Your task to perform on an android device: snooze an email in the gmail app Image 0: 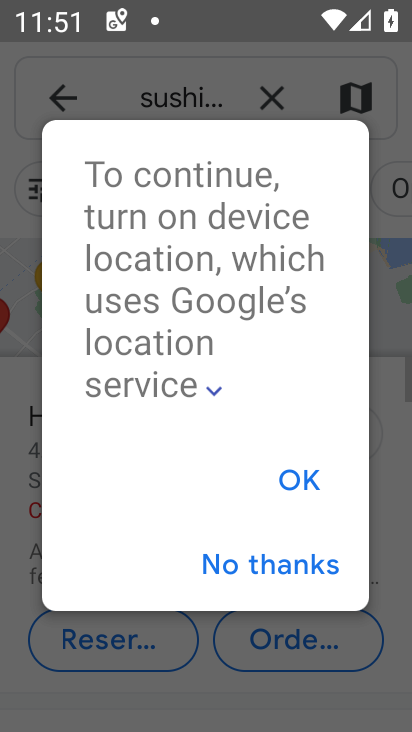
Step 0: press home button
Your task to perform on an android device: snooze an email in the gmail app Image 1: 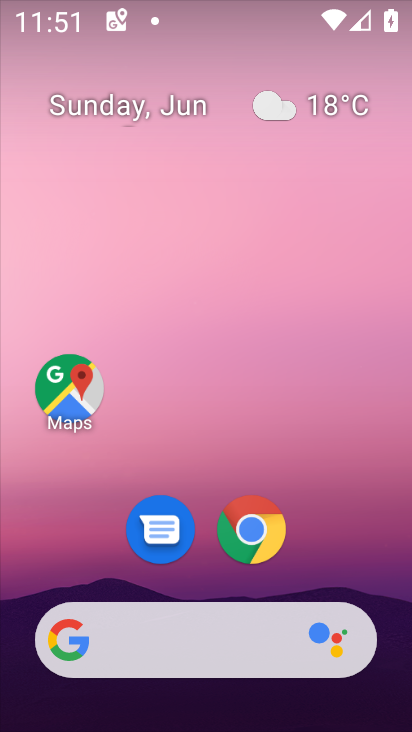
Step 1: drag from (354, 488) to (277, 46)
Your task to perform on an android device: snooze an email in the gmail app Image 2: 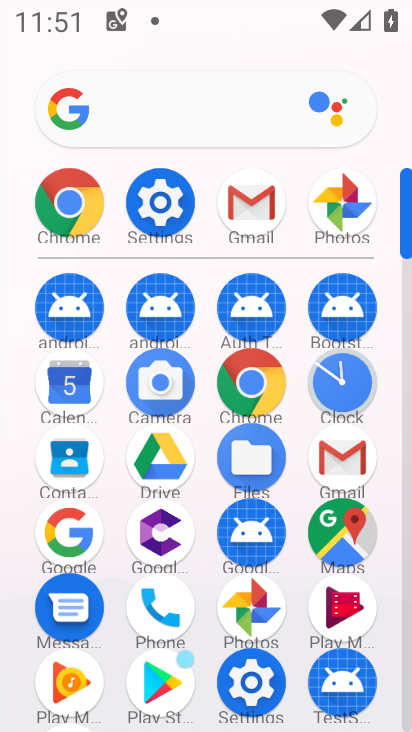
Step 2: click (248, 205)
Your task to perform on an android device: snooze an email in the gmail app Image 3: 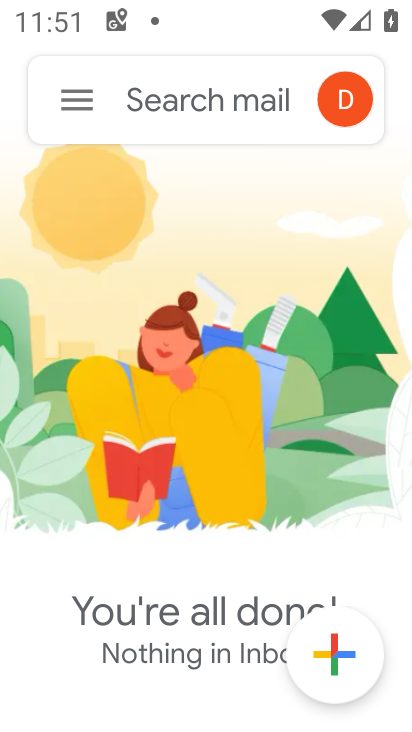
Step 3: click (56, 88)
Your task to perform on an android device: snooze an email in the gmail app Image 4: 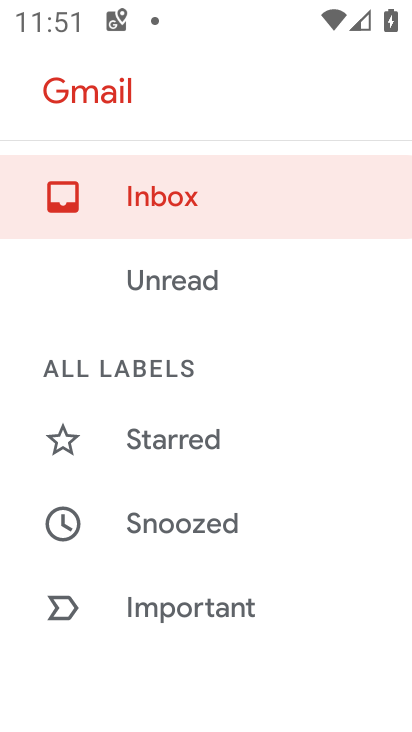
Step 4: click (173, 202)
Your task to perform on an android device: snooze an email in the gmail app Image 5: 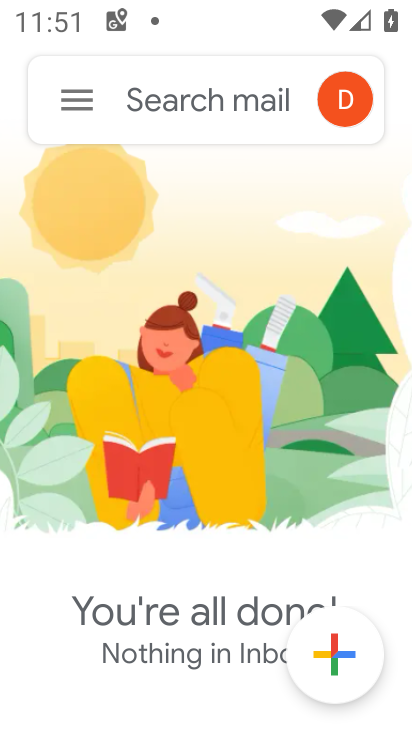
Step 5: task complete